Your task to perform on an android device: manage bookmarks in the chrome app Image 0: 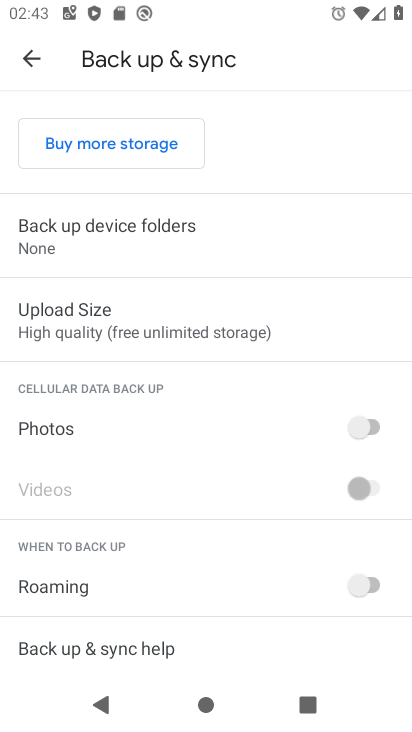
Step 0: press home button
Your task to perform on an android device: manage bookmarks in the chrome app Image 1: 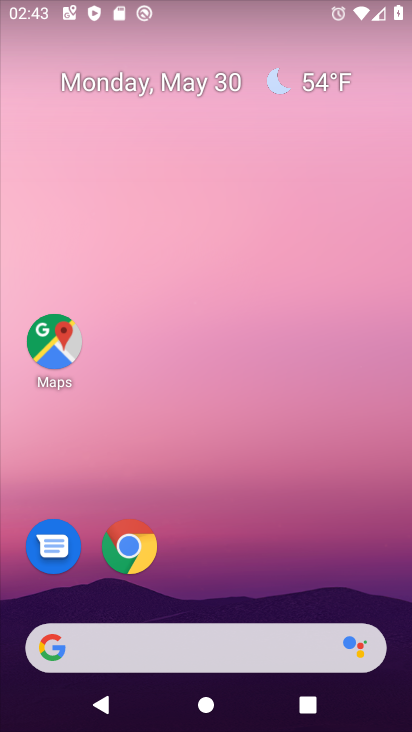
Step 1: drag from (215, 595) to (271, 196)
Your task to perform on an android device: manage bookmarks in the chrome app Image 2: 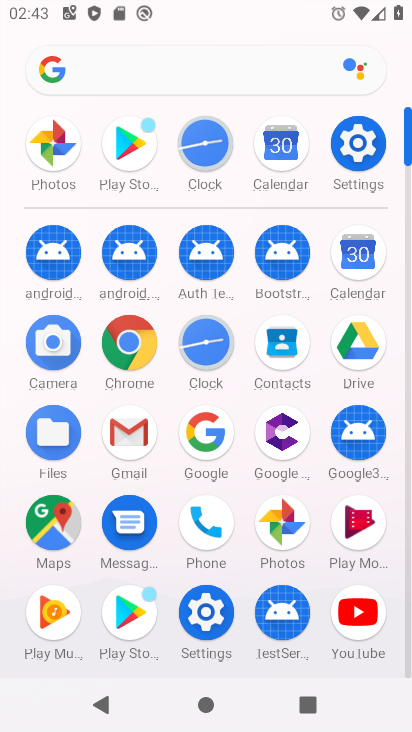
Step 2: click (131, 333)
Your task to perform on an android device: manage bookmarks in the chrome app Image 3: 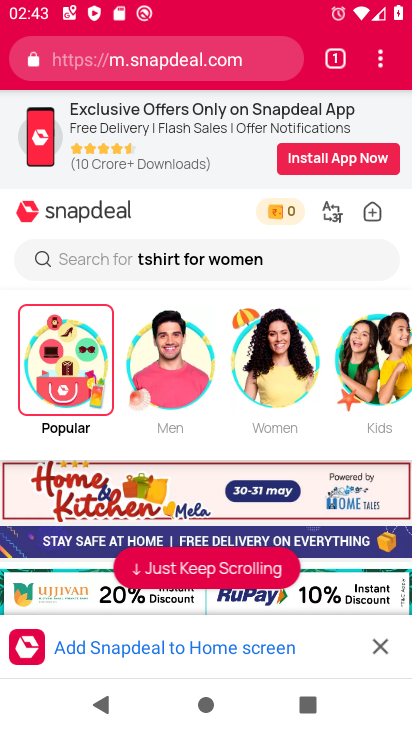
Step 3: click (380, 45)
Your task to perform on an android device: manage bookmarks in the chrome app Image 4: 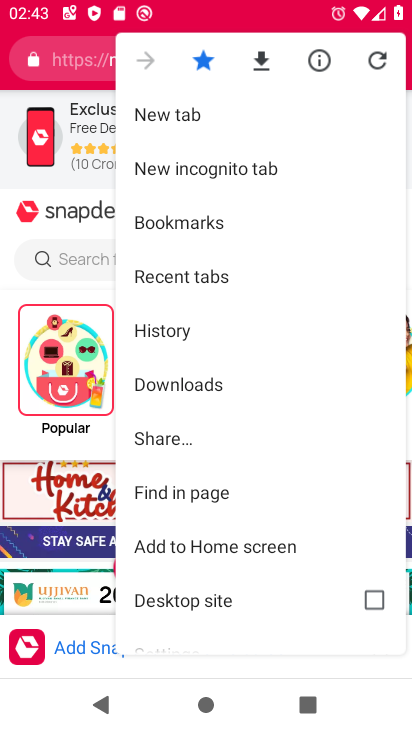
Step 4: click (220, 213)
Your task to perform on an android device: manage bookmarks in the chrome app Image 5: 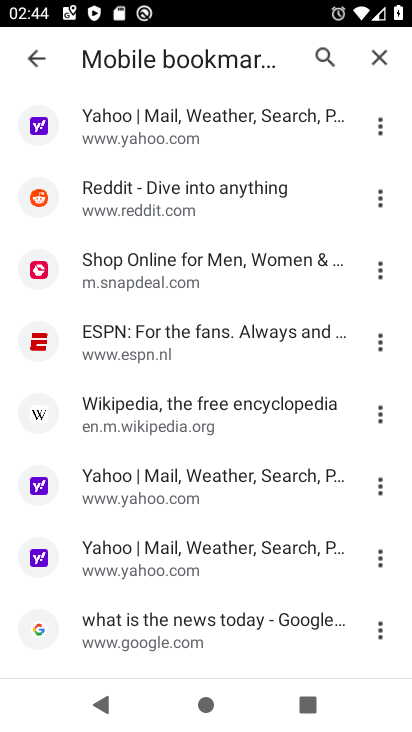
Step 5: click (382, 486)
Your task to perform on an android device: manage bookmarks in the chrome app Image 6: 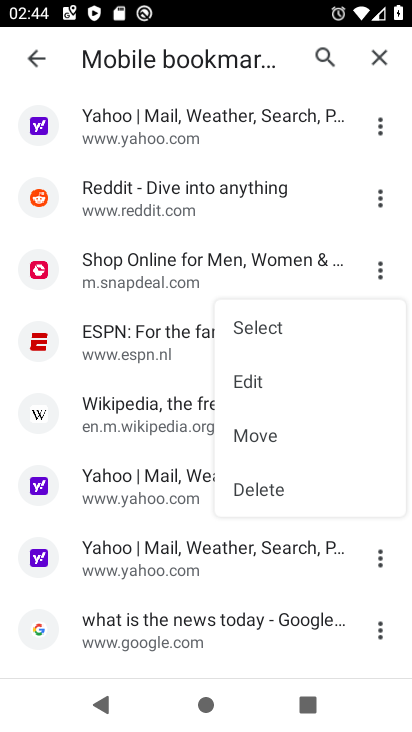
Step 6: click (281, 483)
Your task to perform on an android device: manage bookmarks in the chrome app Image 7: 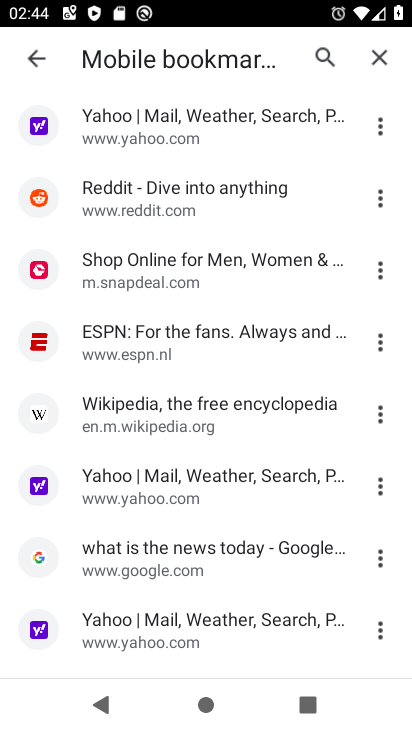
Step 7: task complete